Your task to perform on an android device: make emails show in primary in the gmail app Image 0: 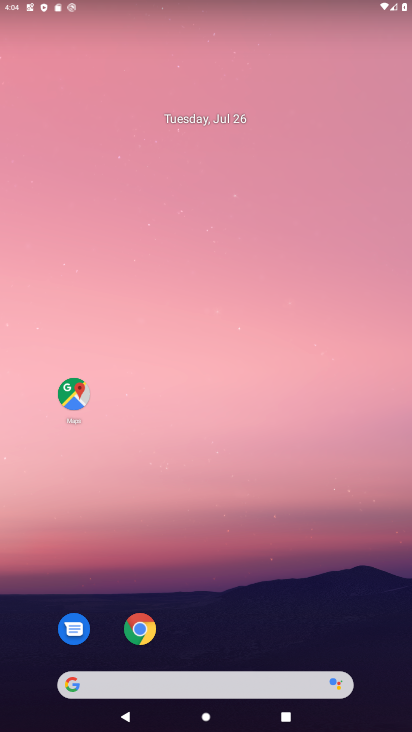
Step 0: drag from (241, 629) to (255, 0)
Your task to perform on an android device: make emails show in primary in the gmail app Image 1: 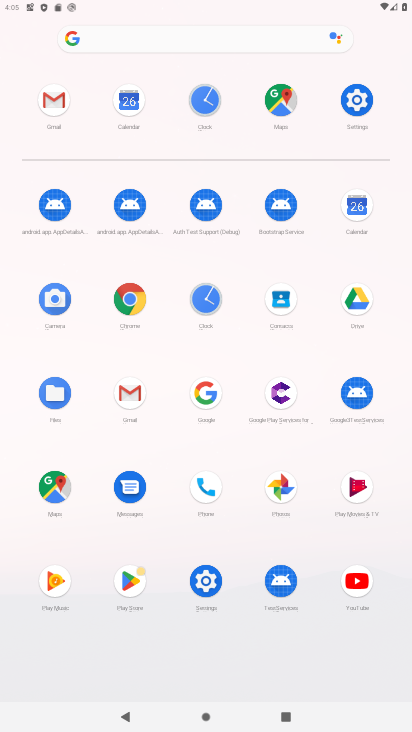
Step 1: click (128, 389)
Your task to perform on an android device: make emails show in primary in the gmail app Image 2: 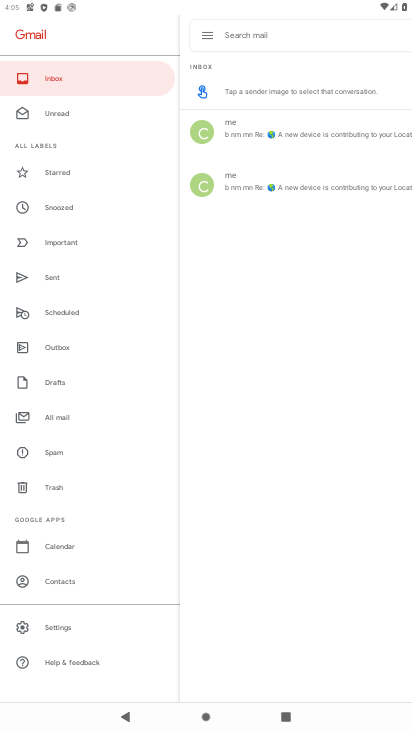
Step 2: click (75, 624)
Your task to perform on an android device: make emails show in primary in the gmail app Image 3: 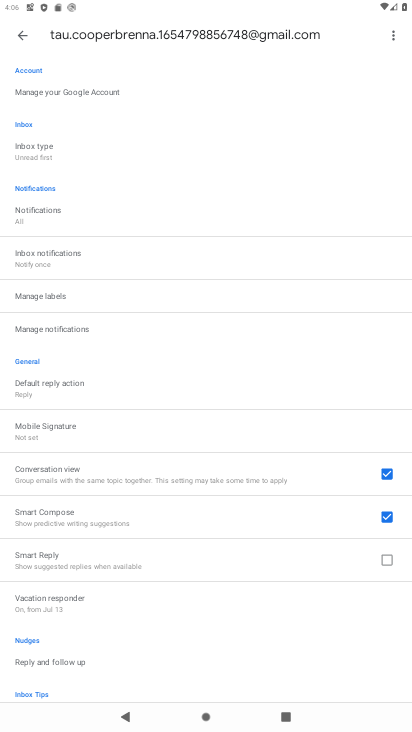
Step 3: click (68, 148)
Your task to perform on an android device: make emails show in primary in the gmail app Image 4: 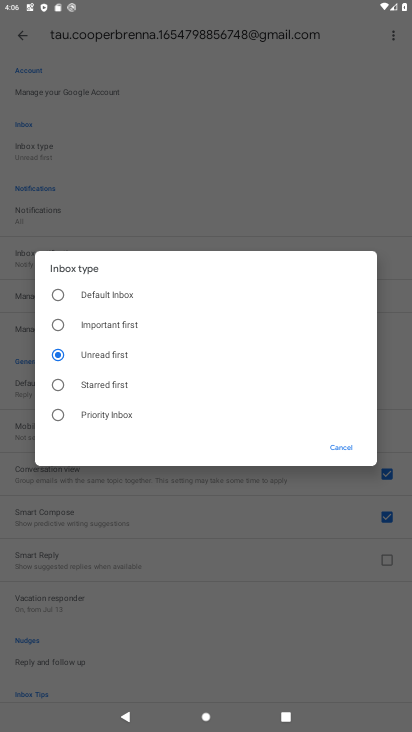
Step 4: click (105, 299)
Your task to perform on an android device: make emails show in primary in the gmail app Image 5: 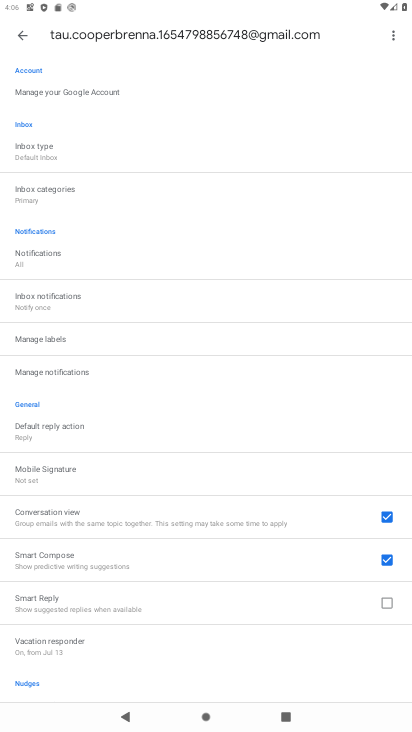
Step 5: click (88, 198)
Your task to perform on an android device: make emails show in primary in the gmail app Image 6: 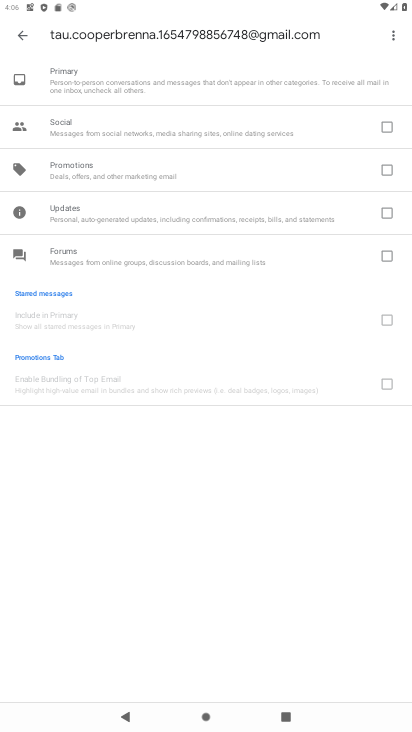
Step 6: task complete